Your task to perform on an android device: change text size in settings app Image 0: 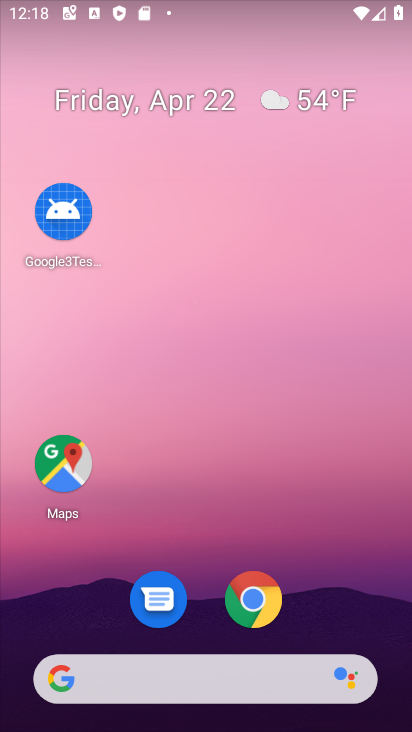
Step 0: drag from (323, 592) to (264, 24)
Your task to perform on an android device: change text size in settings app Image 1: 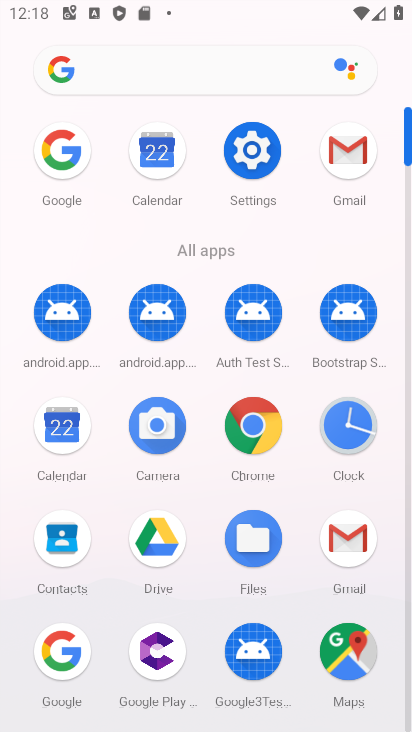
Step 1: click (244, 146)
Your task to perform on an android device: change text size in settings app Image 2: 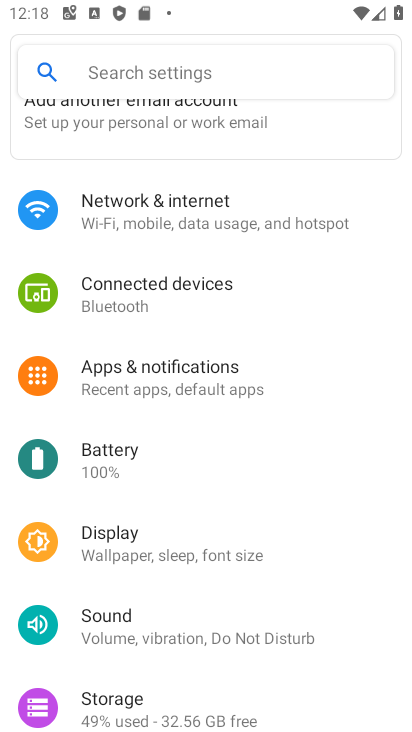
Step 2: click (136, 536)
Your task to perform on an android device: change text size in settings app Image 3: 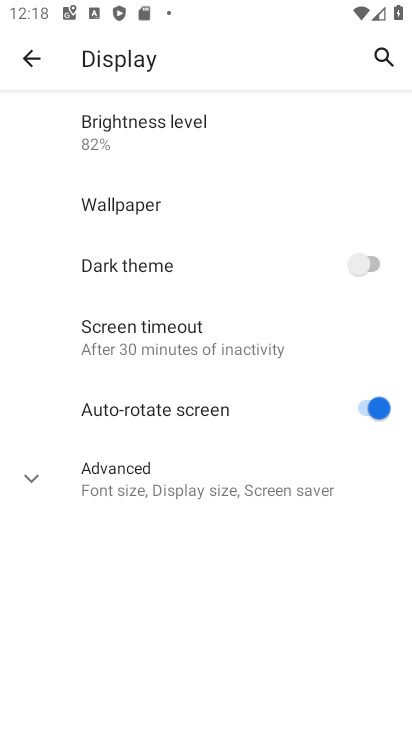
Step 3: click (166, 469)
Your task to perform on an android device: change text size in settings app Image 4: 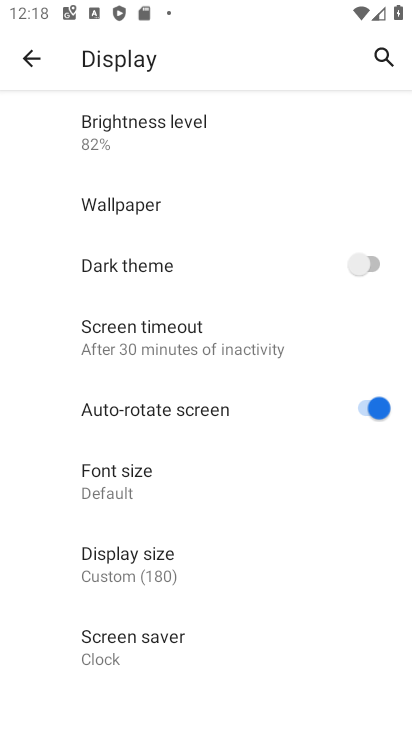
Step 4: click (166, 469)
Your task to perform on an android device: change text size in settings app Image 5: 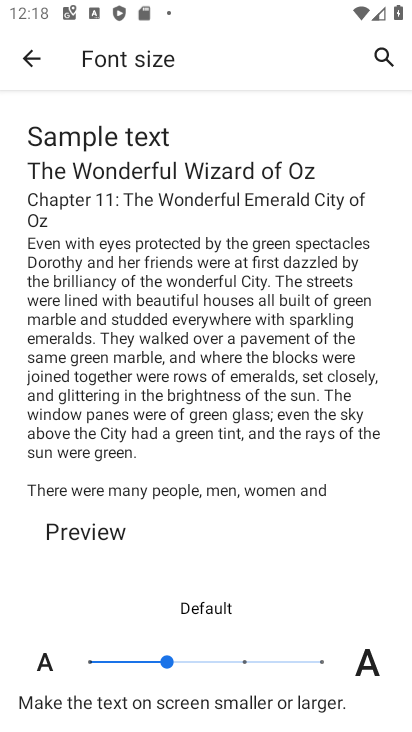
Step 5: click (244, 659)
Your task to perform on an android device: change text size in settings app Image 6: 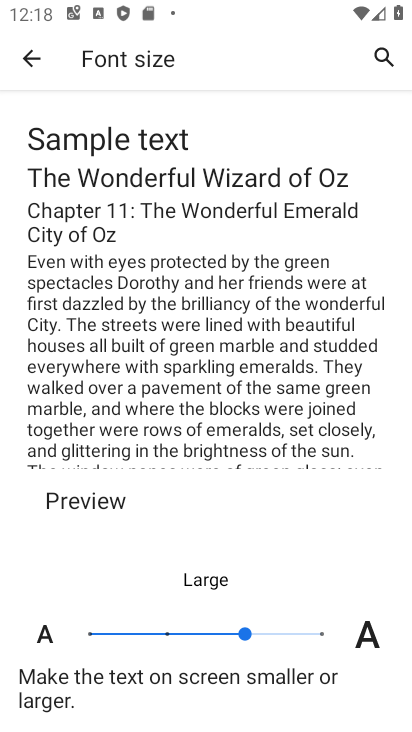
Step 6: task complete